Your task to perform on an android device: turn off smart reply in the gmail app Image 0: 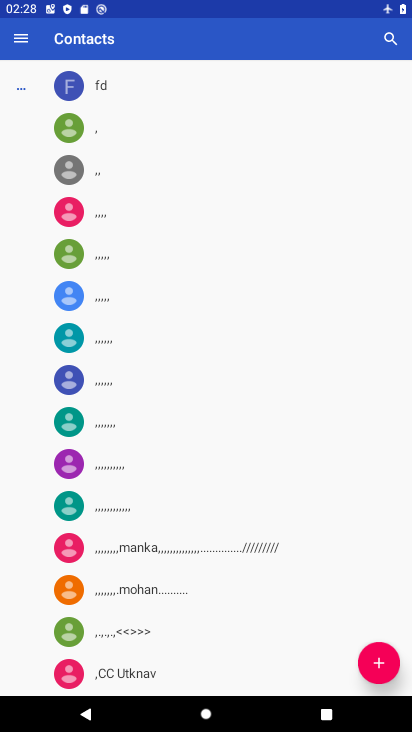
Step 0: press home button
Your task to perform on an android device: turn off smart reply in the gmail app Image 1: 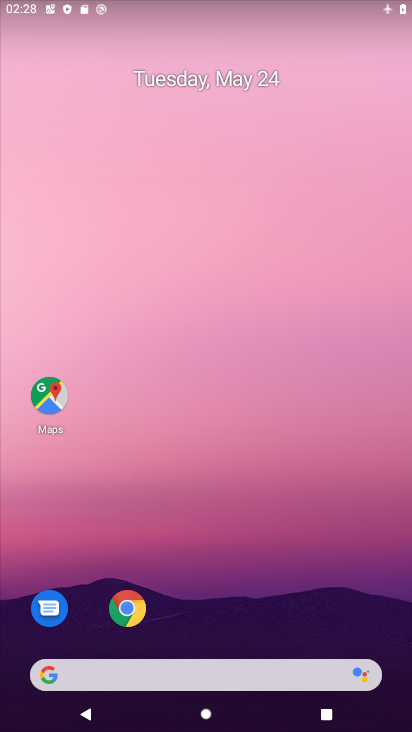
Step 1: drag from (272, 616) to (203, 150)
Your task to perform on an android device: turn off smart reply in the gmail app Image 2: 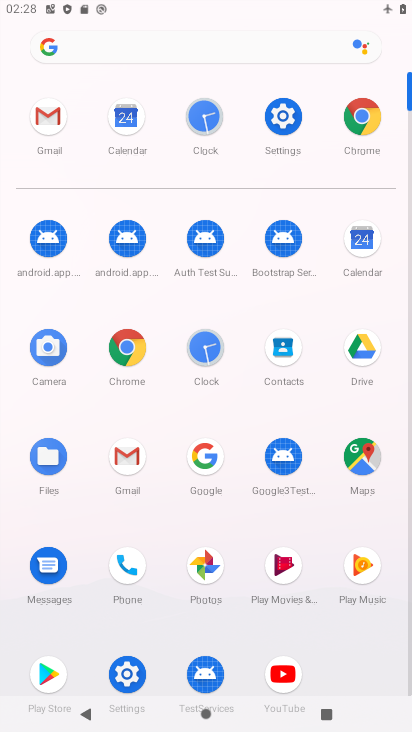
Step 2: click (43, 130)
Your task to perform on an android device: turn off smart reply in the gmail app Image 3: 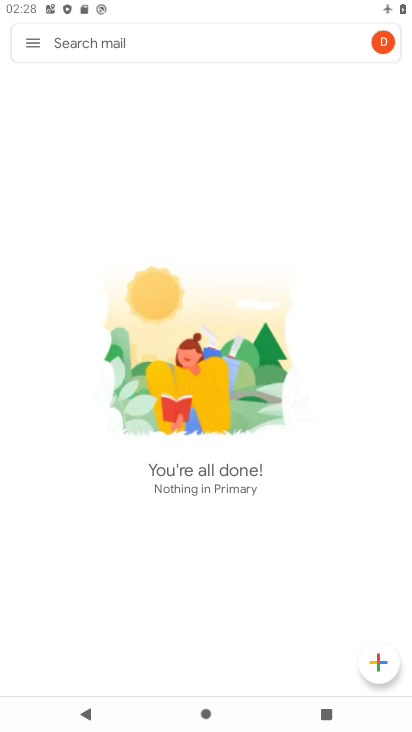
Step 3: click (29, 48)
Your task to perform on an android device: turn off smart reply in the gmail app Image 4: 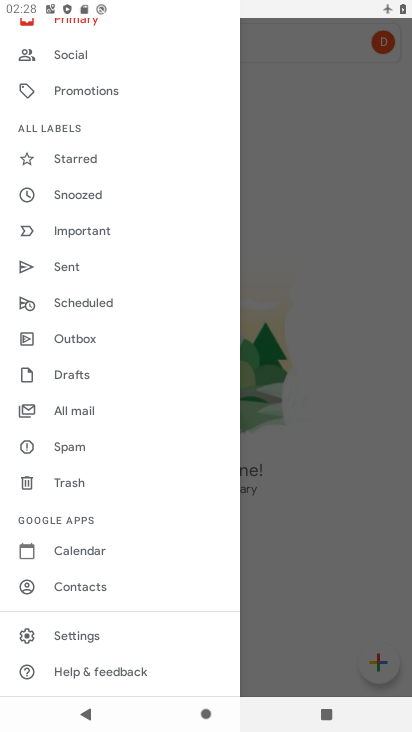
Step 4: click (97, 631)
Your task to perform on an android device: turn off smart reply in the gmail app Image 5: 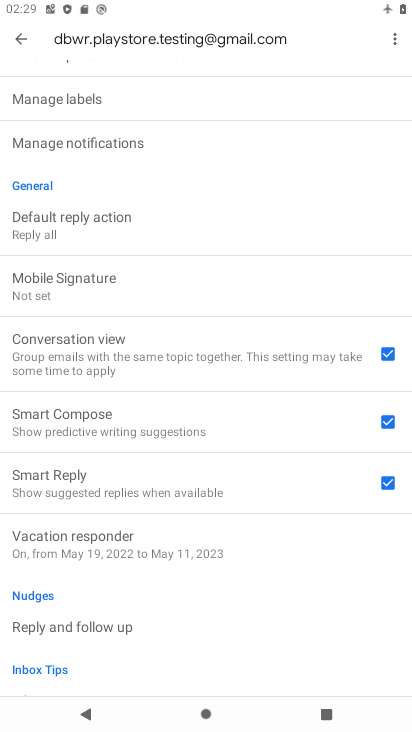
Step 5: click (395, 476)
Your task to perform on an android device: turn off smart reply in the gmail app Image 6: 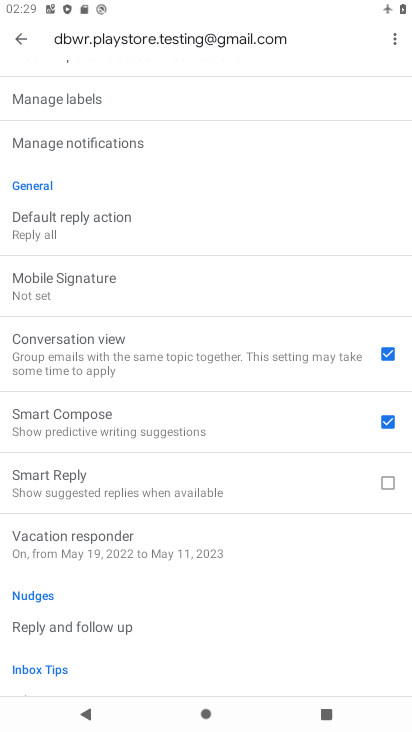
Step 6: task complete